Your task to perform on an android device: turn off wifi Image 0: 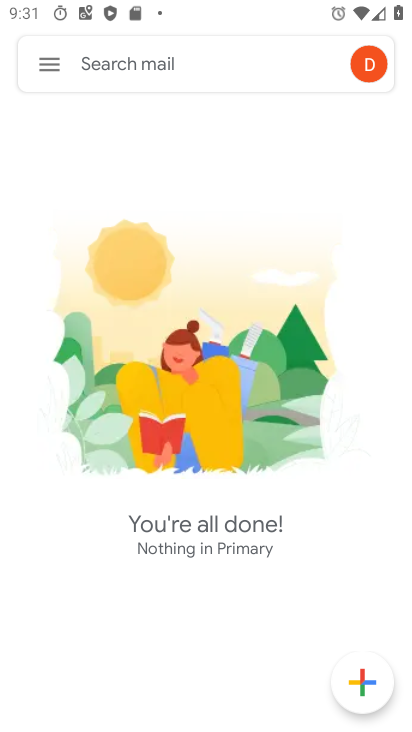
Step 0: press home button
Your task to perform on an android device: turn off wifi Image 1: 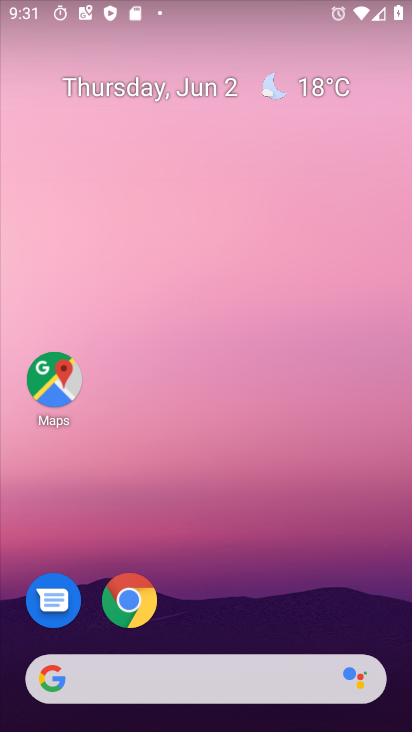
Step 1: drag from (315, 603) to (331, 161)
Your task to perform on an android device: turn off wifi Image 2: 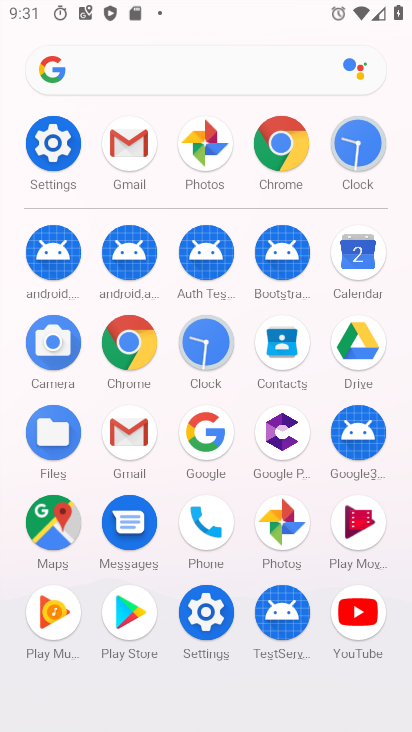
Step 2: click (56, 161)
Your task to perform on an android device: turn off wifi Image 3: 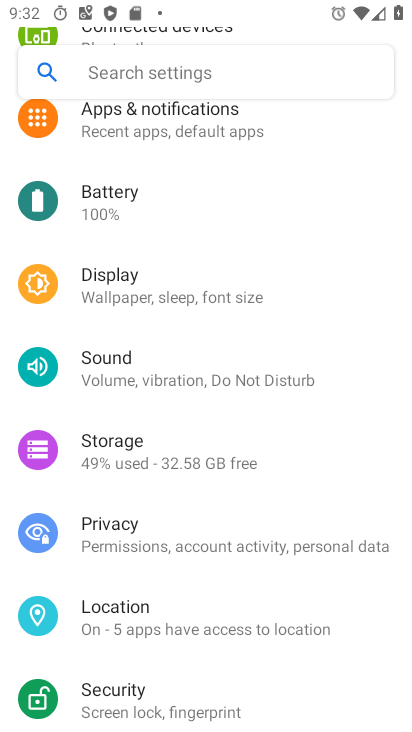
Step 3: drag from (357, 193) to (343, 353)
Your task to perform on an android device: turn off wifi Image 4: 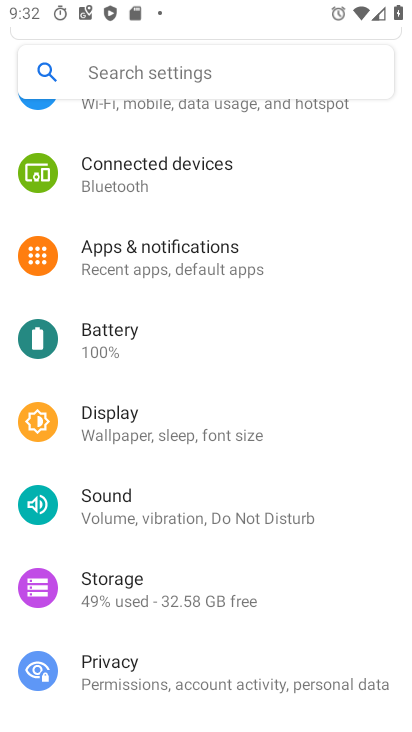
Step 4: drag from (327, 178) to (340, 338)
Your task to perform on an android device: turn off wifi Image 5: 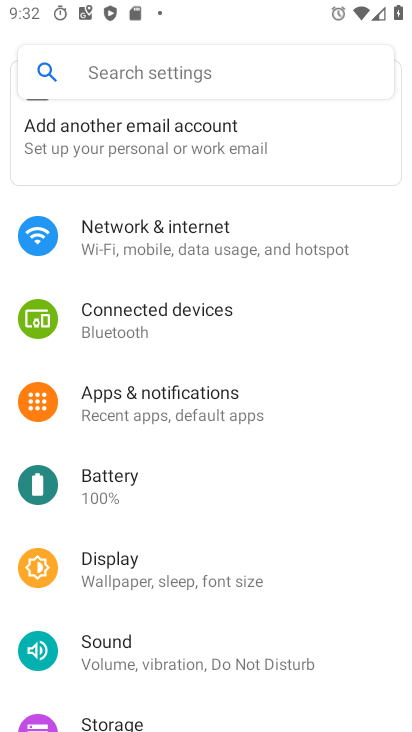
Step 5: click (257, 257)
Your task to perform on an android device: turn off wifi Image 6: 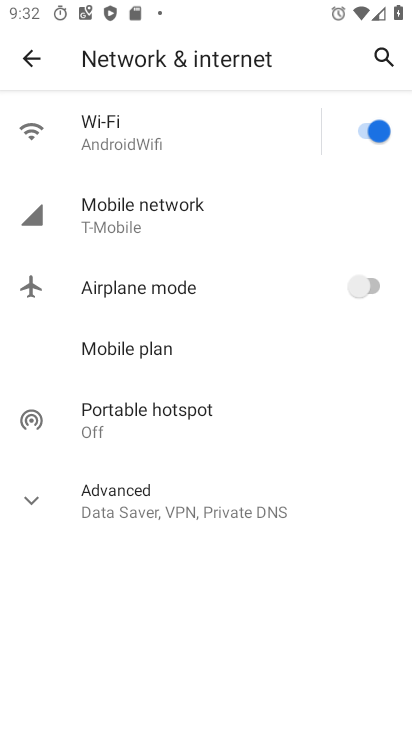
Step 6: click (371, 136)
Your task to perform on an android device: turn off wifi Image 7: 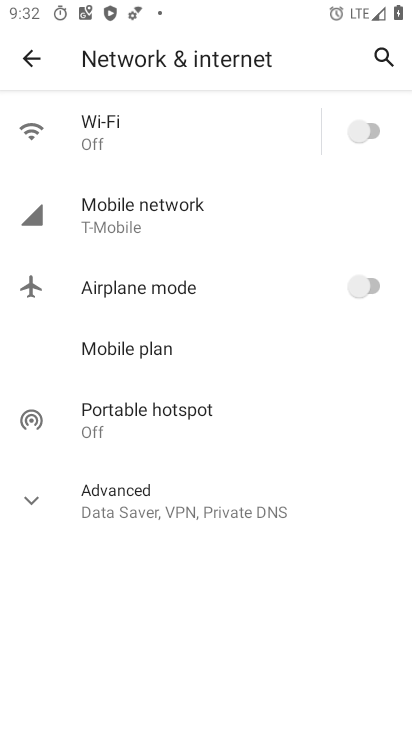
Step 7: task complete